Your task to perform on an android device: What's the weather like in Beijing? Image 0: 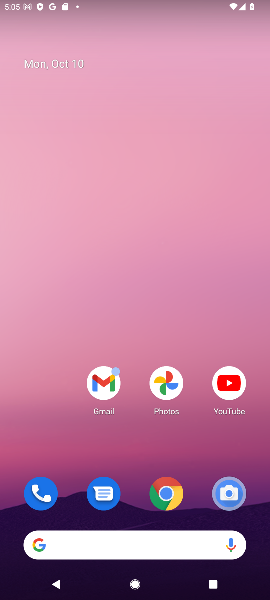
Step 0: click (146, 543)
Your task to perform on an android device: What's the weather like in Beijing? Image 1: 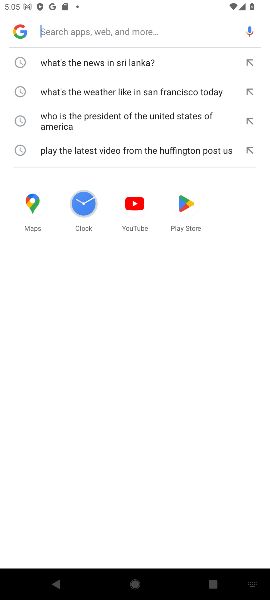
Step 1: type "What's the weather like in Beijing"
Your task to perform on an android device: What's the weather like in Beijing? Image 2: 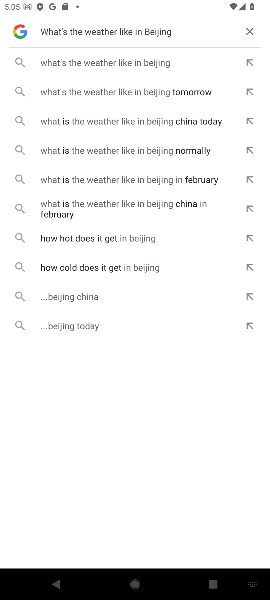
Step 2: click (70, 51)
Your task to perform on an android device: What's the weather like in Beijing? Image 3: 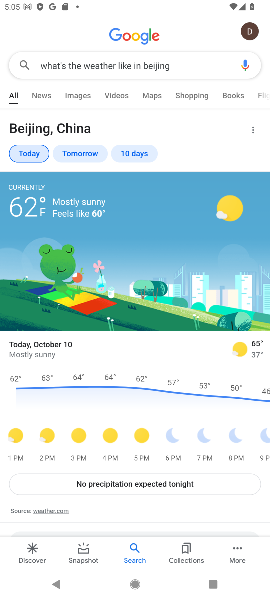
Step 3: task complete